Your task to perform on an android device: turn on showing notifications on the lock screen Image 0: 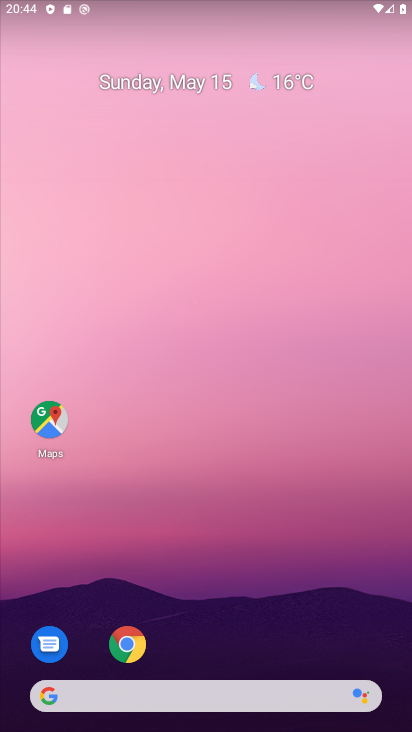
Step 0: drag from (209, 655) to (271, 155)
Your task to perform on an android device: turn on showing notifications on the lock screen Image 1: 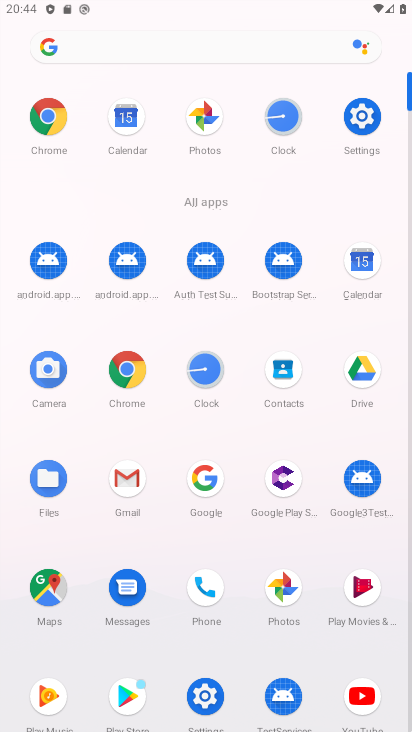
Step 1: click (384, 103)
Your task to perform on an android device: turn on showing notifications on the lock screen Image 2: 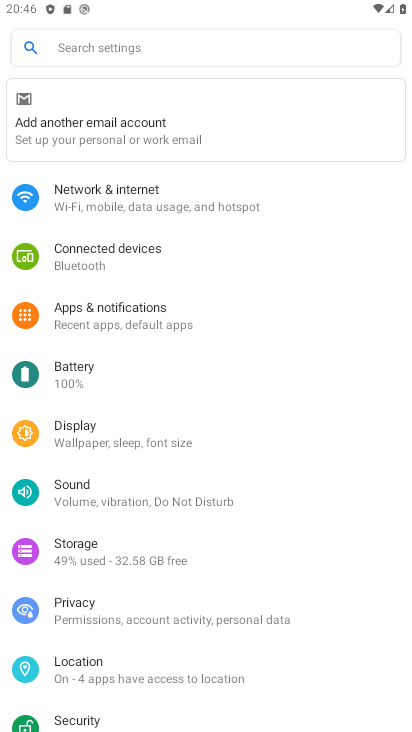
Step 2: click (140, 311)
Your task to perform on an android device: turn on showing notifications on the lock screen Image 3: 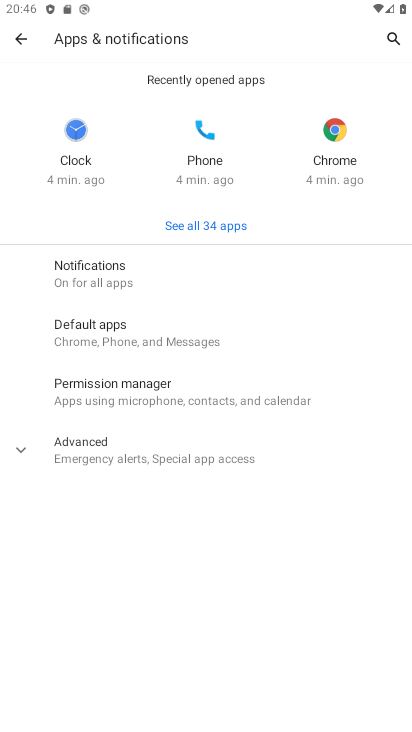
Step 3: click (168, 276)
Your task to perform on an android device: turn on showing notifications on the lock screen Image 4: 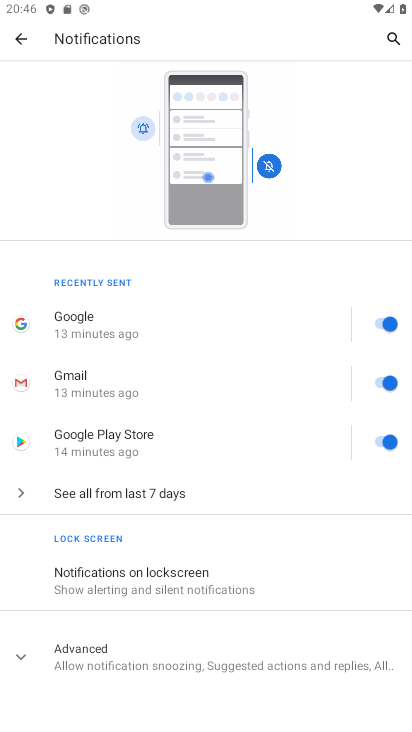
Step 4: click (149, 602)
Your task to perform on an android device: turn on showing notifications on the lock screen Image 5: 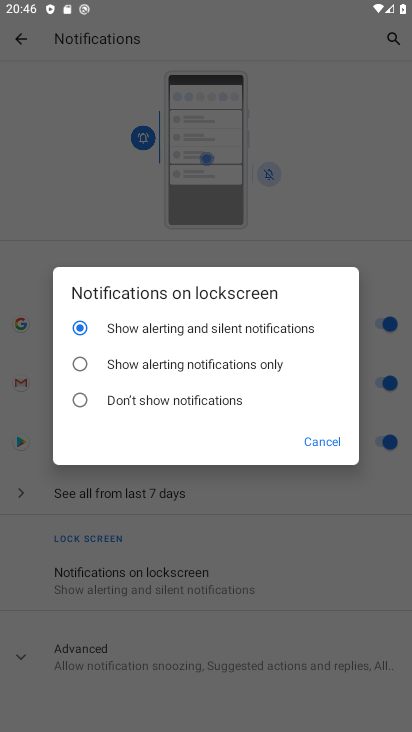
Step 5: task complete